Your task to perform on an android device: toggle pop-ups in chrome Image 0: 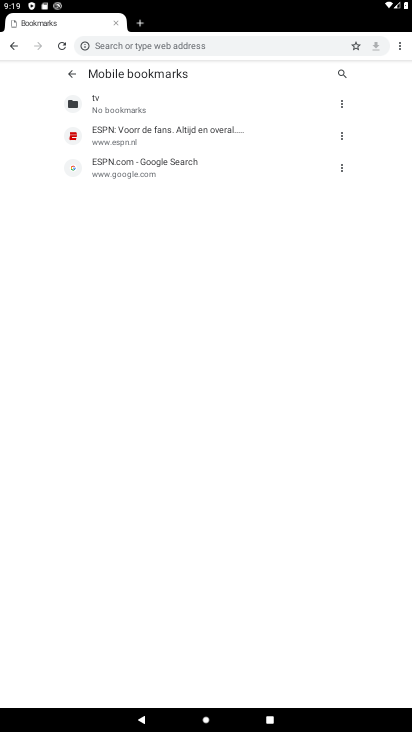
Step 0: press home button
Your task to perform on an android device: toggle pop-ups in chrome Image 1: 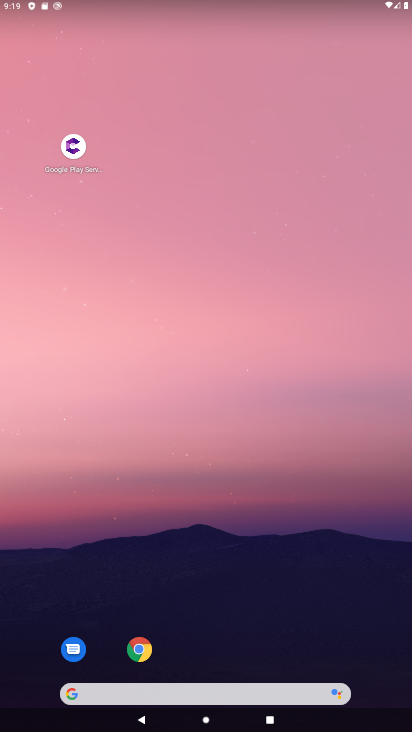
Step 1: click (180, 651)
Your task to perform on an android device: toggle pop-ups in chrome Image 2: 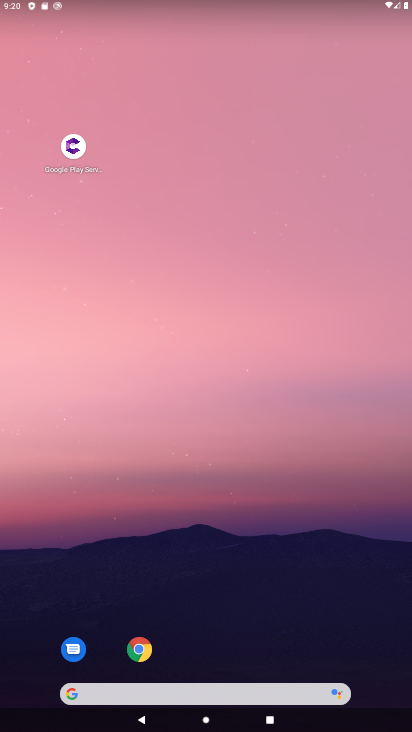
Step 2: click (148, 648)
Your task to perform on an android device: toggle pop-ups in chrome Image 3: 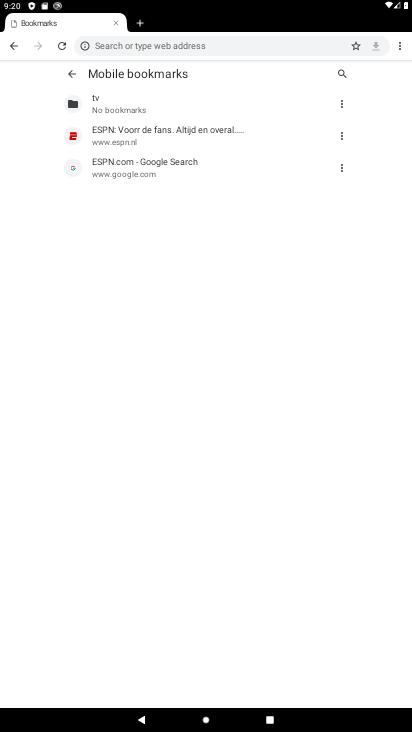
Step 3: click (402, 50)
Your task to perform on an android device: toggle pop-ups in chrome Image 4: 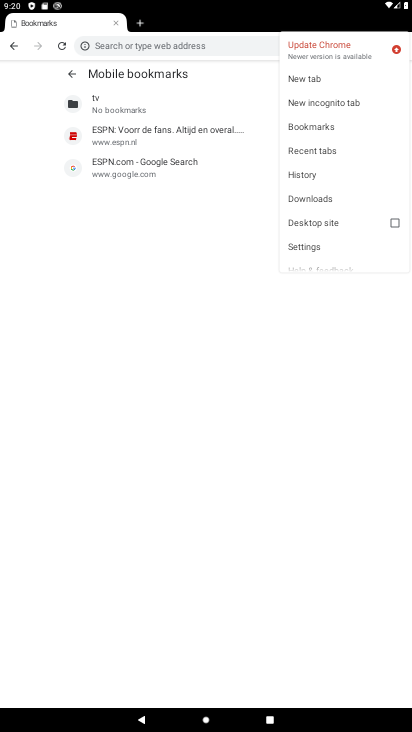
Step 4: click (306, 246)
Your task to perform on an android device: toggle pop-ups in chrome Image 5: 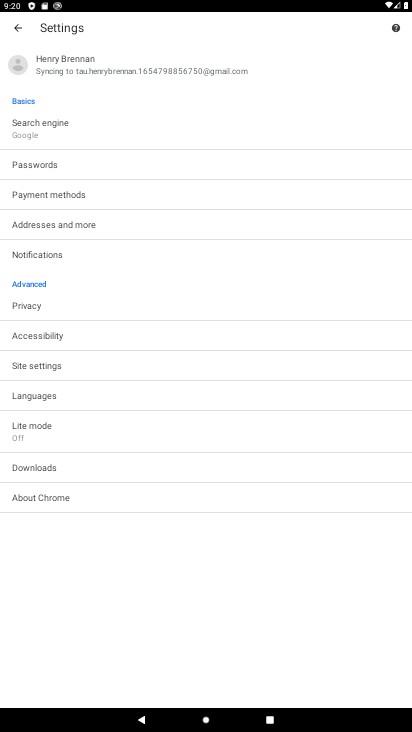
Step 5: click (65, 363)
Your task to perform on an android device: toggle pop-ups in chrome Image 6: 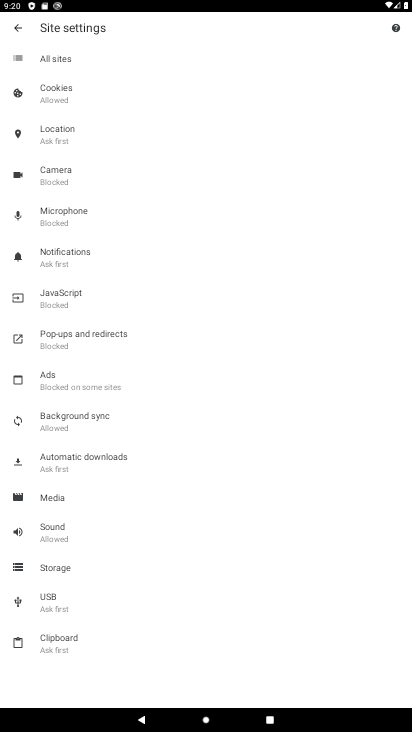
Step 6: click (89, 341)
Your task to perform on an android device: toggle pop-ups in chrome Image 7: 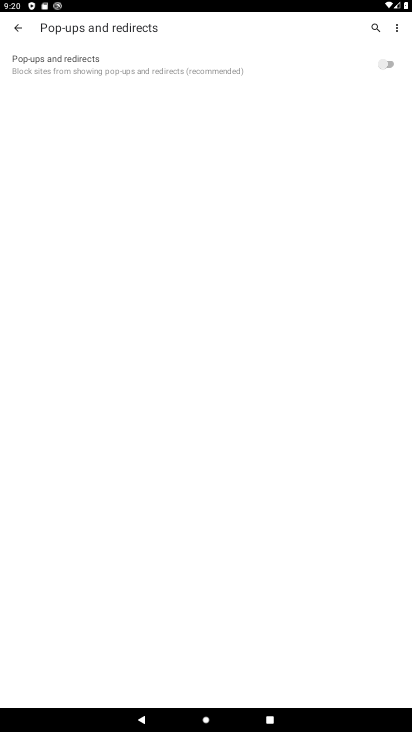
Step 7: click (388, 66)
Your task to perform on an android device: toggle pop-ups in chrome Image 8: 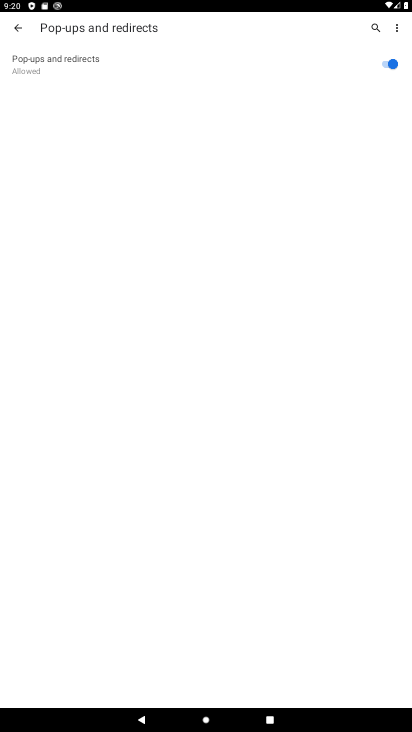
Step 8: task complete